Your task to perform on an android device: open app "Adobe Acrobat Reader" (install if not already installed) and go to login screen Image 0: 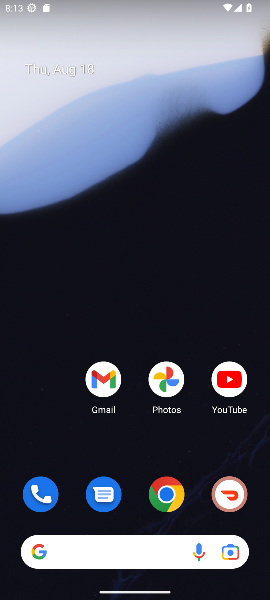
Step 0: drag from (196, 512) to (169, 43)
Your task to perform on an android device: open app "Adobe Acrobat Reader" (install if not already installed) and go to login screen Image 1: 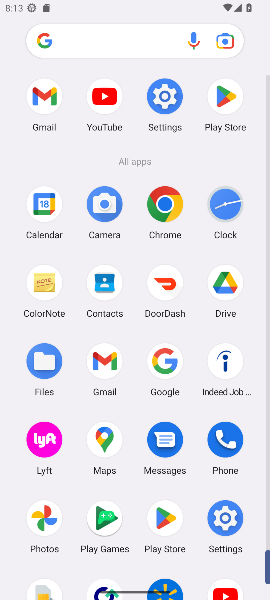
Step 1: click (167, 518)
Your task to perform on an android device: open app "Adobe Acrobat Reader" (install if not already installed) and go to login screen Image 2: 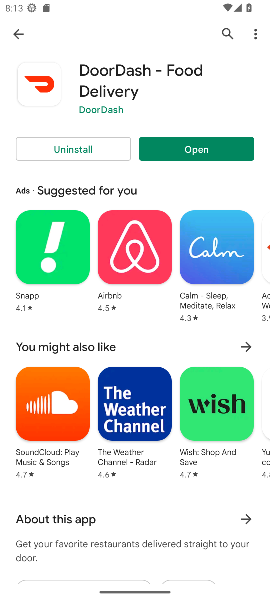
Step 2: click (228, 28)
Your task to perform on an android device: open app "Adobe Acrobat Reader" (install if not already installed) and go to login screen Image 3: 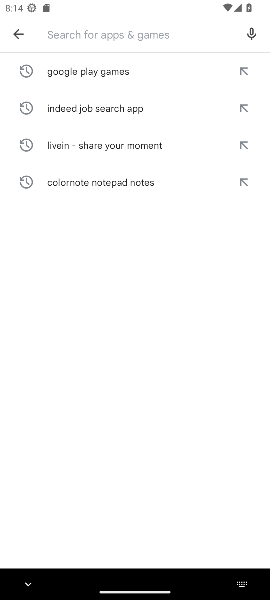
Step 3: type "Adobe Acrobat Reader"
Your task to perform on an android device: open app "Adobe Acrobat Reader" (install if not already installed) and go to login screen Image 4: 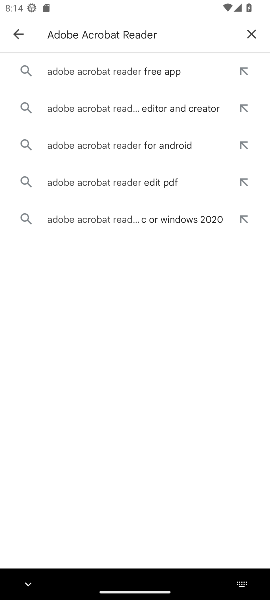
Step 4: click (95, 63)
Your task to perform on an android device: open app "Adobe Acrobat Reader" (install if not already installed) and go to login screen Image 5: 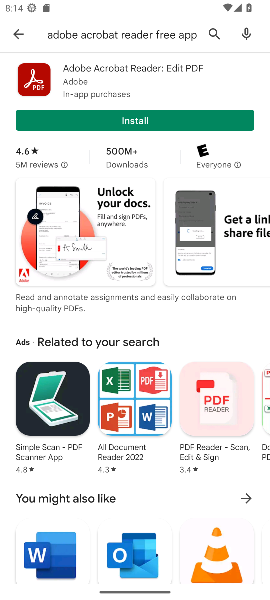
Step 5: click (126, 120)
Your task to perform on an android device: open app "Adobe Acrobat Reader" (install if not already installed) and go to login screen Image 6: 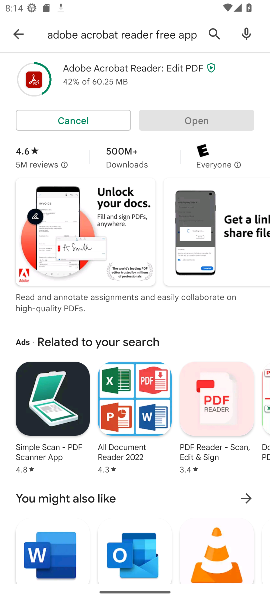
Step 6: click (171, 136)
Your task to perform on an android device: open app "Adobe Acrobat Reader" (install if not already installed) and go to login screen Image 7: 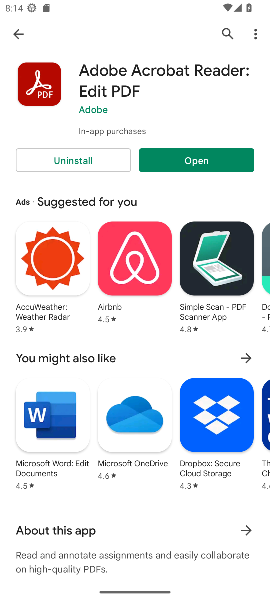
Step 7: click (195, 160)
Your task to perform on an android device: open app "Adobe Acrobat Reader" (install if not already installed) and go to login screen Image 8: 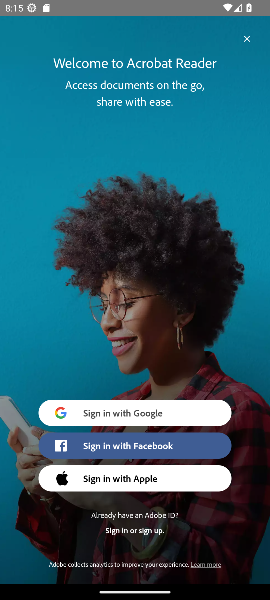
Step 8: task complete